Your task to perform on an android device: change notifications settings Image 0: 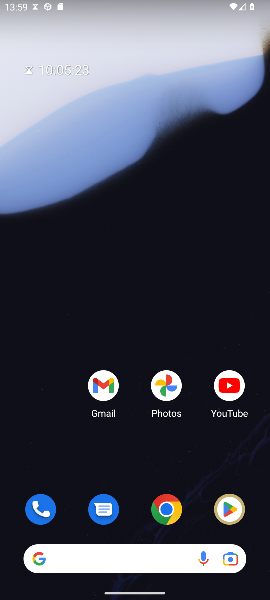
Step 0: press home button
Your task to perform on an android device: change notifications settings Image 1: 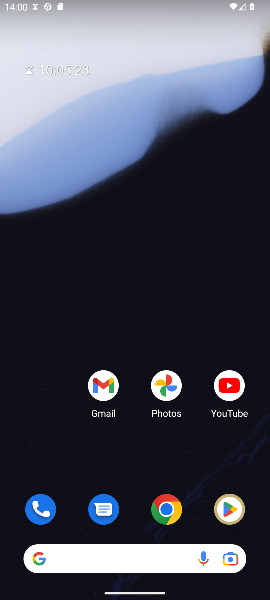
Step 1: drag from (139, 519) to (185, 124)
Your task to perform on an android device: change notifications settings Image 2: 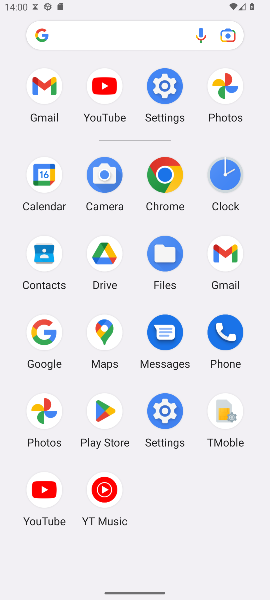
Step 2: click (166, 84)
Your task to perform on an android device: change notifications settings Image 3: 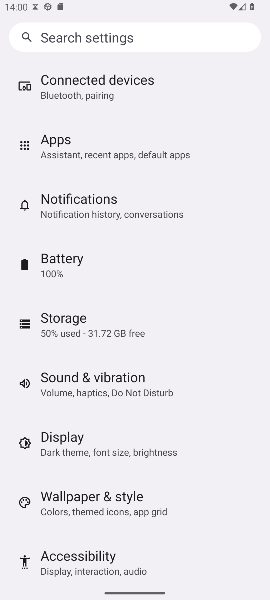
Step 3: drag from (179, 128) to (185, 596)
Your task to perform on an android device: change notifications settings Image 4: 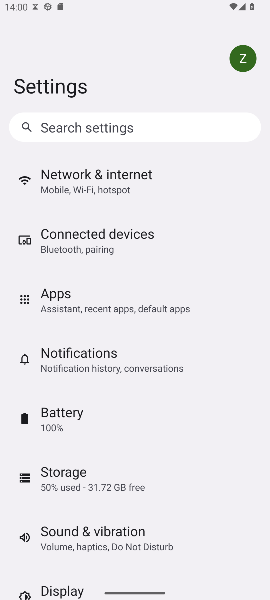
Step 4: click (81, 354)
Your task to perform on an android device: change notifications settings Image 5: 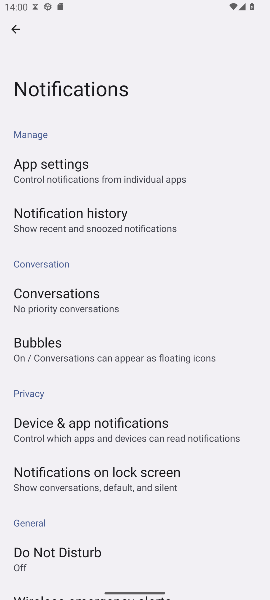
Step 5: click (78, 487)
Your task to perform on an android device: change notifications settings Image 6: 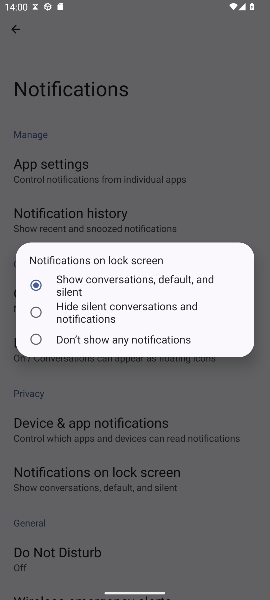
Step 6: click (39, 344)
Your task to perform on an android device: change notifications settings Image 7: 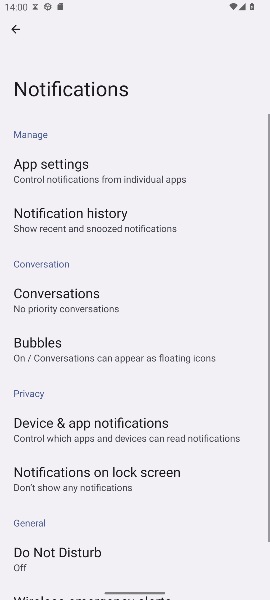
Step 7: task complete